Your task to perform on an android device: Open eBay Image 0: 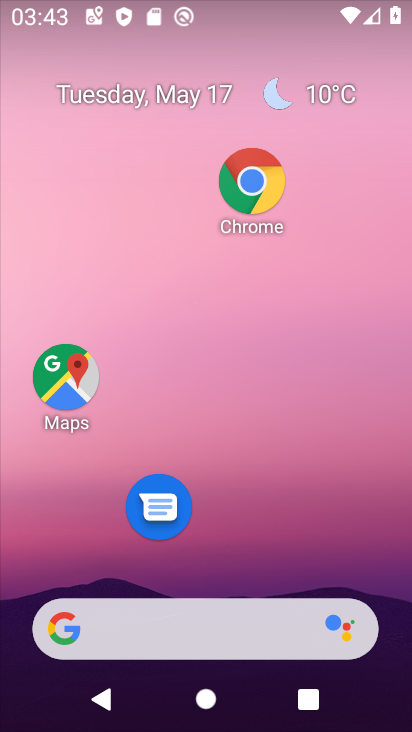
Step 0: click (246, 184)
Your task to perform on an android device: Open eBay Image 1: 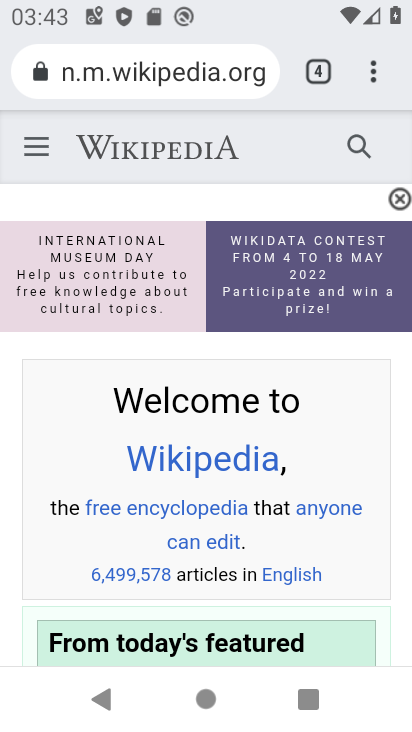
Step 1: click (228, 73)
Your task to perform on an android device: Open eBay Image 2: 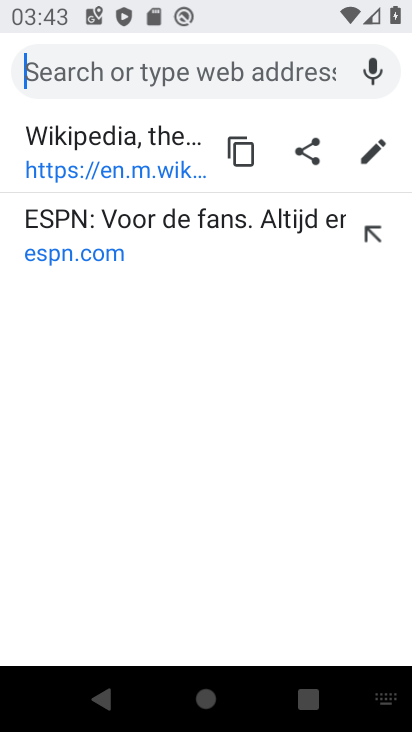
Step 2: type "ebay"
Your task to perform on an android device: Open eBay Image 3: 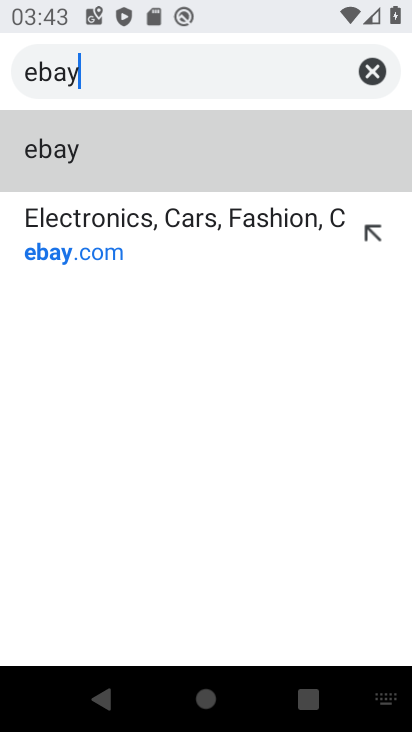
Step 3: click (83, 226)
Your task to perform on an android device: Open eBay Image 4: 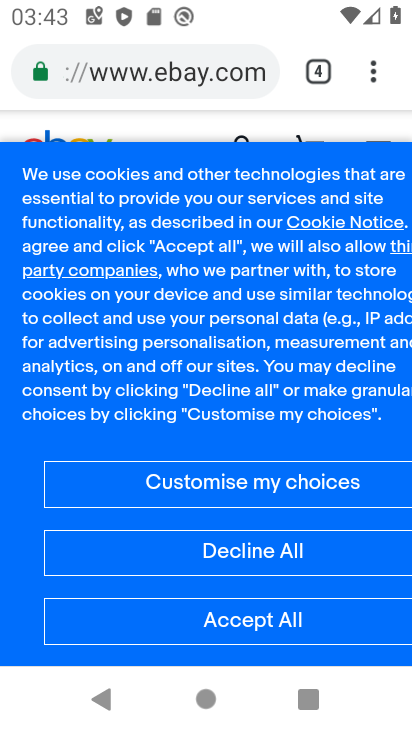
Step 4: task complete